Your task to perform on an android device: check the backup settings in the google photos Image 0: 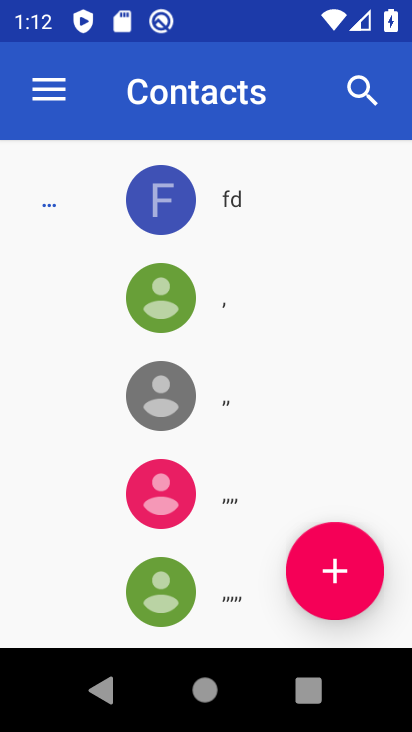
Step 0: press home button
Your task to perform on an android device: check the backup settings in the google photos Image 1: 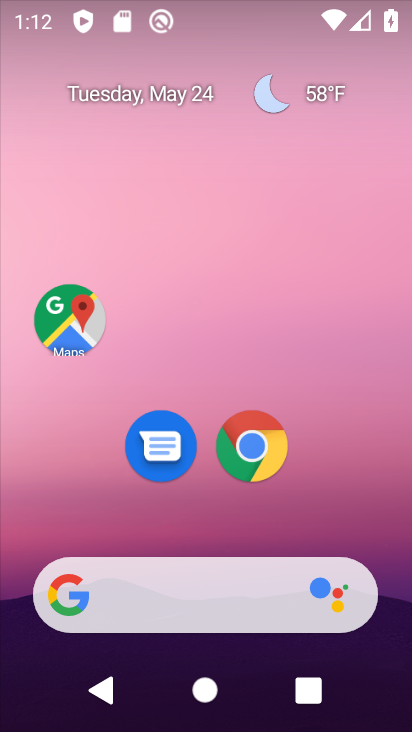
Step 1: drag from (208, 631) to (220, 139)
Your task to perform on an android device: check the backup settings in the google photos Image 2: 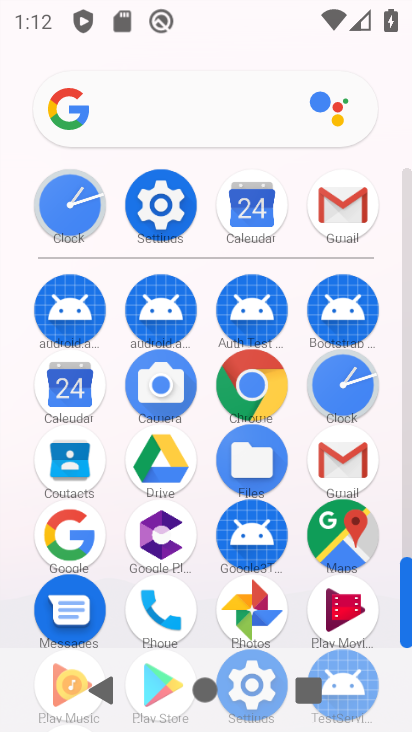
Step 2: drag from (176, 496) to (185, 177)
Your task to perform on an android device: check the backup settings in the google photos Image 3: 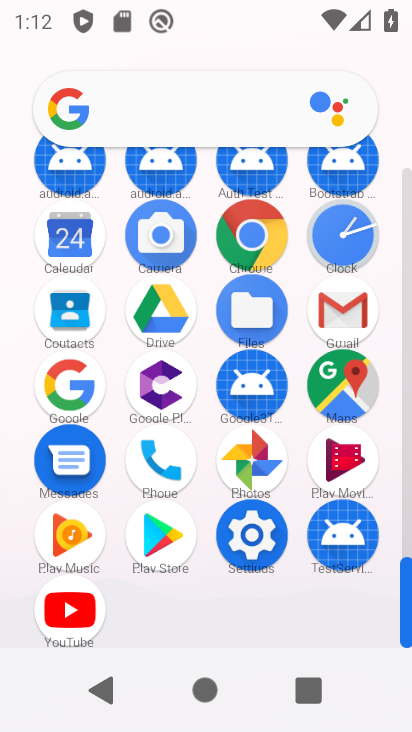
Step 3: click (253, 478)
Your task to perform on an android device: check the backup settings in the google photos Image 4: 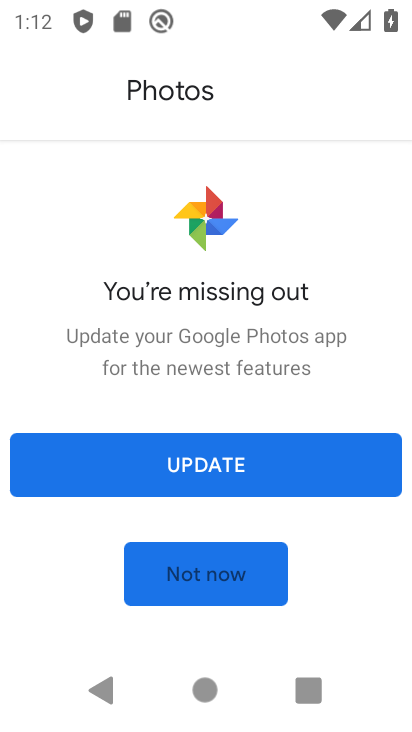
Step 4: click (234, 590)
Your task to perform on an android device: check the backup settings in the google photos Image 5: 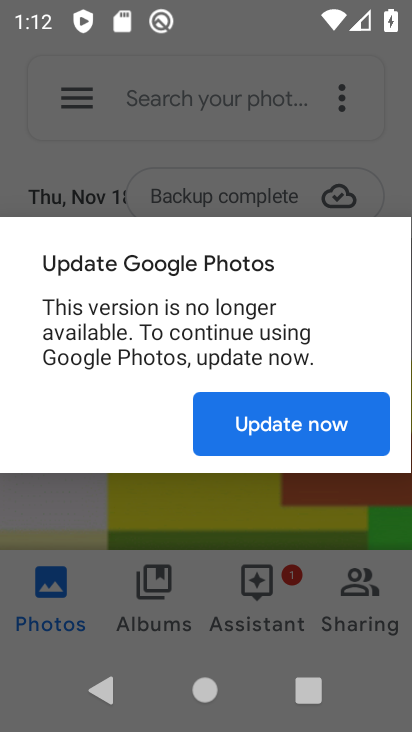
Step 5: click (258, 437)
Your task to perform on an android device: check the backup settings in the google photos Image 6: 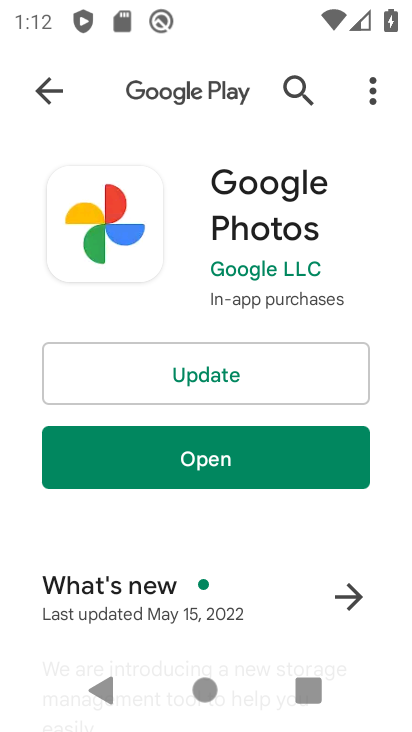
Step 6: click (257, 368)
Your task to perform on an android device: check the backup settings in the google photos Image 7: 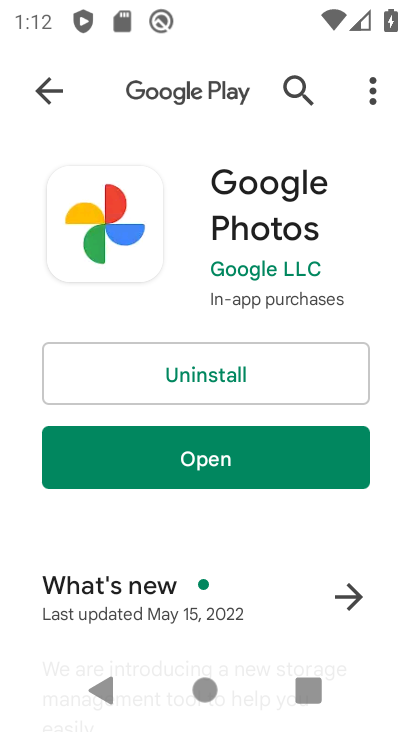
Step 7: task complete